Your task to perform on an android device: Search for sushi restaurants on Maps Image 0: 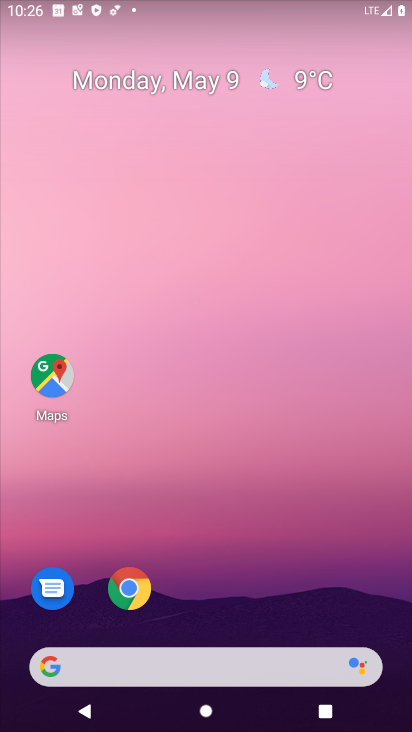
Step 0: press home button
Your task to perform on an android device: Search for sushi restaurants on Maps Image 1: 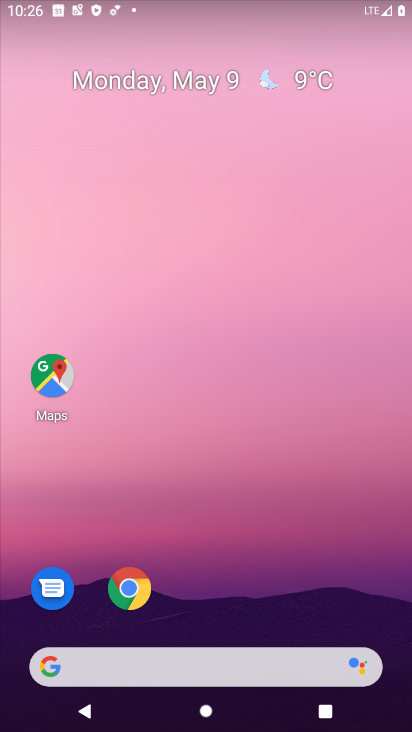
Step 1: drag from (202, 659) to (278, 162)
Your task to perform on an android device: Search for sushi restaurants on Maps Image 2: 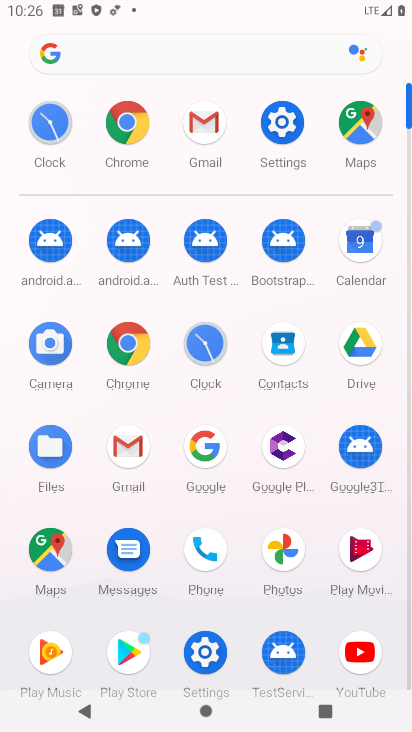
Step 2: click (359, 132)
Your task to perform on an android device: Search for sushi restaurants on Maps Image 3: 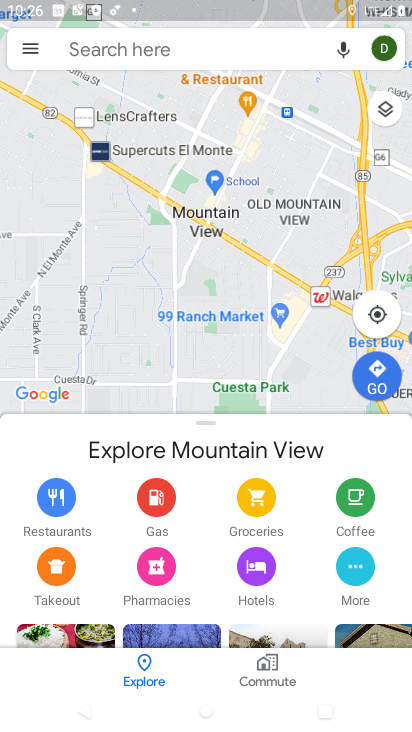
Step 3: click (223, 41)
Your task to perform on an android device: Search for sushi restaurants on Maps Image 4: 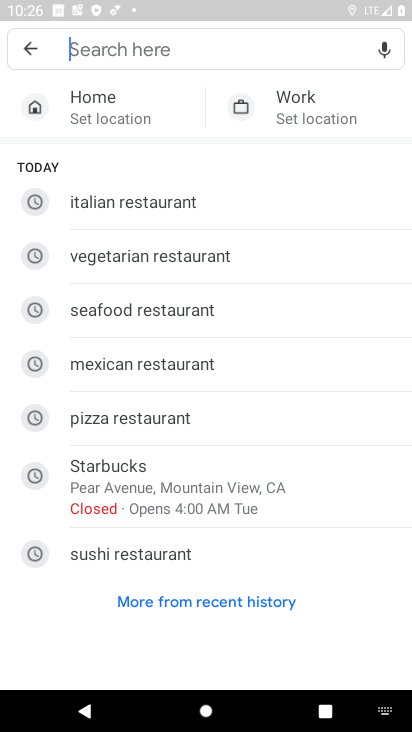
Step 4: click (150, 558)
Your task to perform on an android device: Search for sushi restaurants on Maps Image 5: 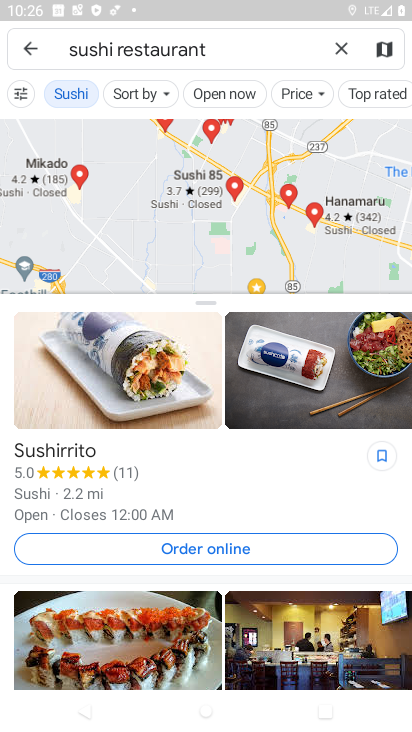
Step 5: task complete